Your task to perform on an android device: turn off sleep mode Image 0: 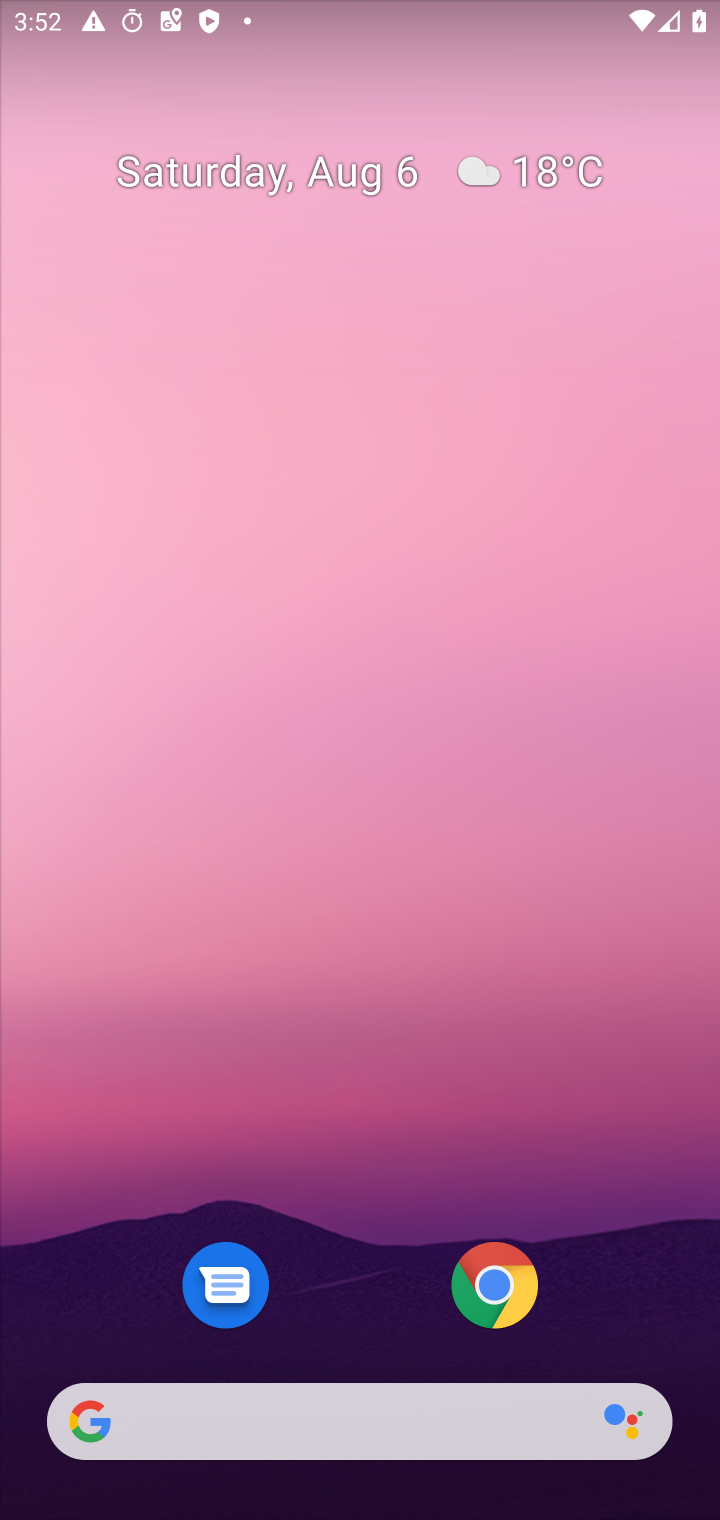
Step 0: drag from (382, 1241) to (404, 208)
Your task to perform on an android device: turn off sleep mode Image 1: 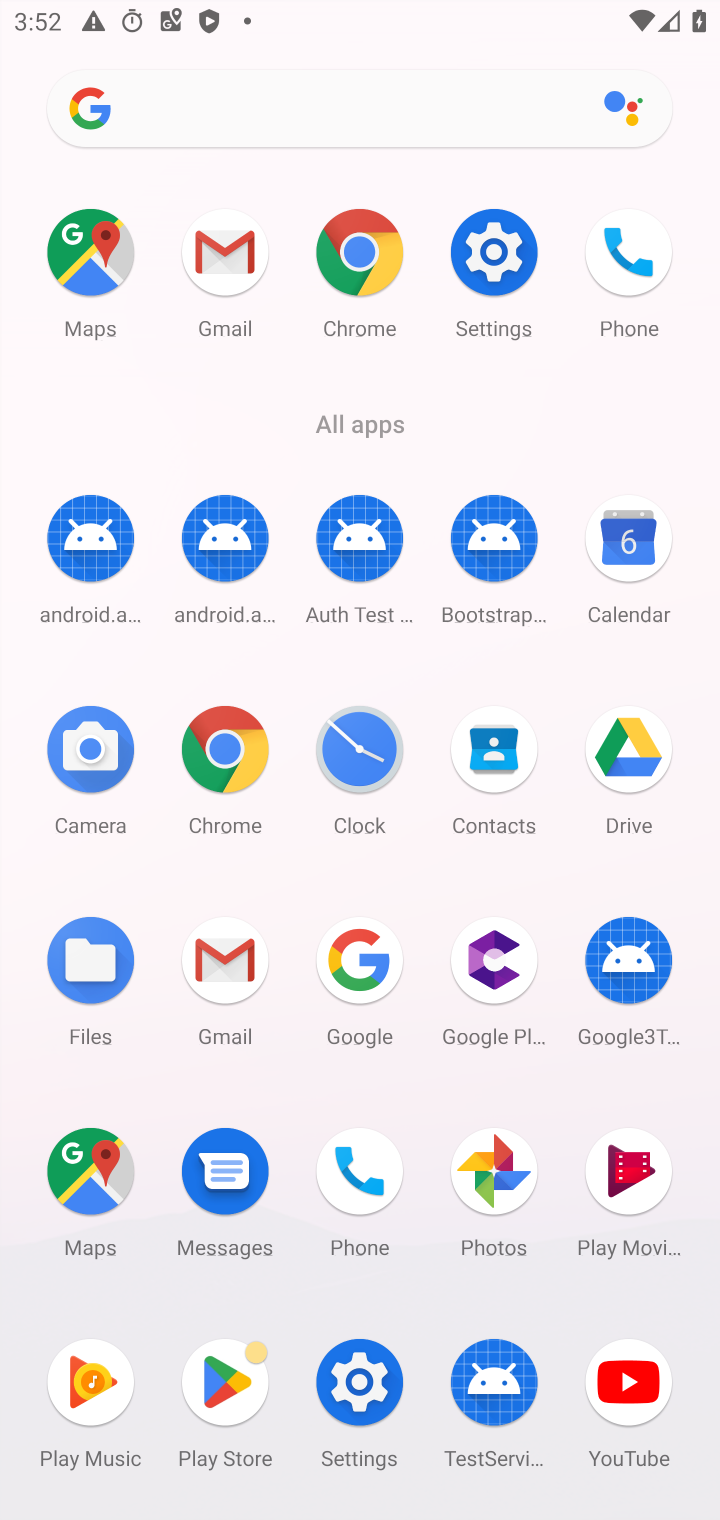
Step 1: click (491, 246)
Your task to perform on an android device: turn off sleep mode Image 2: 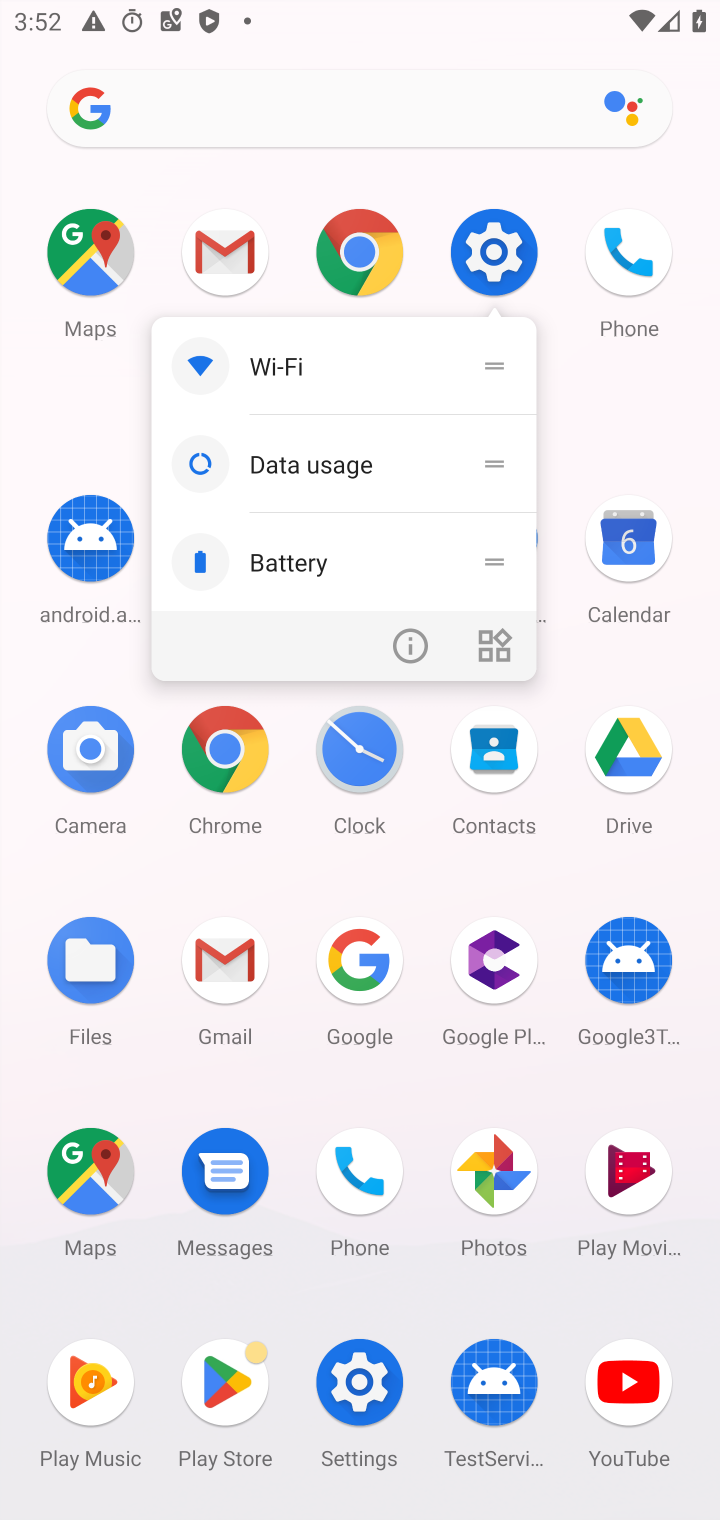
Step 2: click (490, 244)
Your task to perform on an android device: turn off sleep mode Image 3: 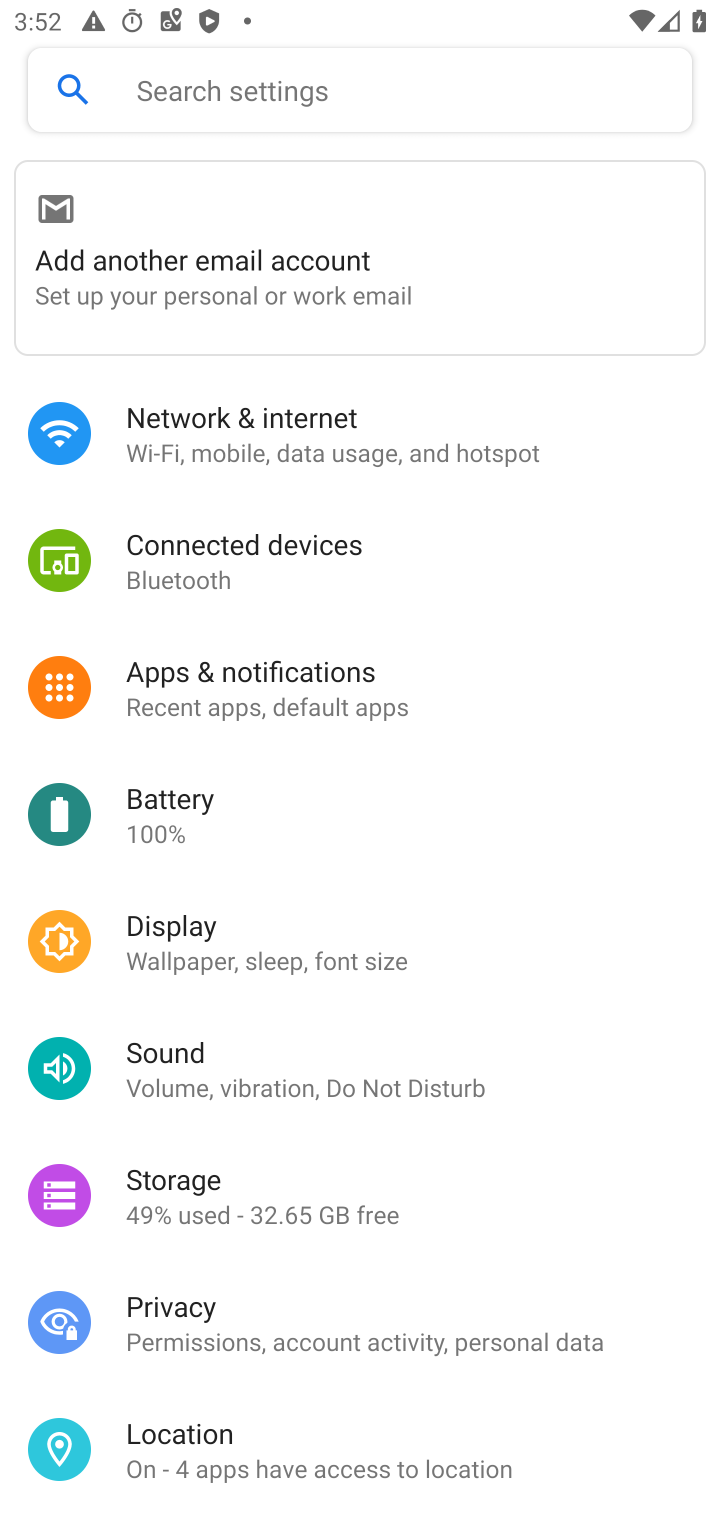
Step 3: click (245, 931)
Your task to perform on an android device: turn off sleep mode Image 4: 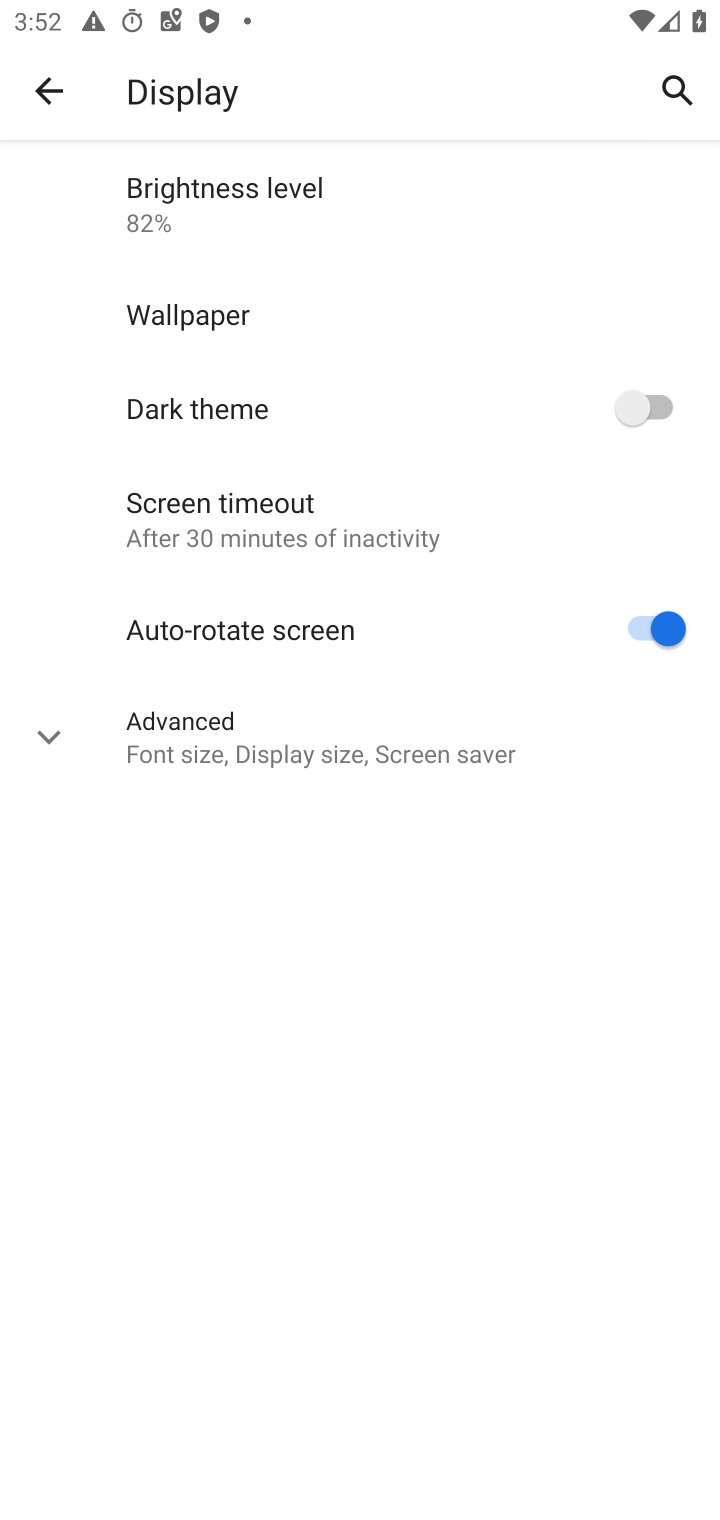
Step 4: click (94, 735)
Your task to perform on an android device: turn off sleep mode Image 5: 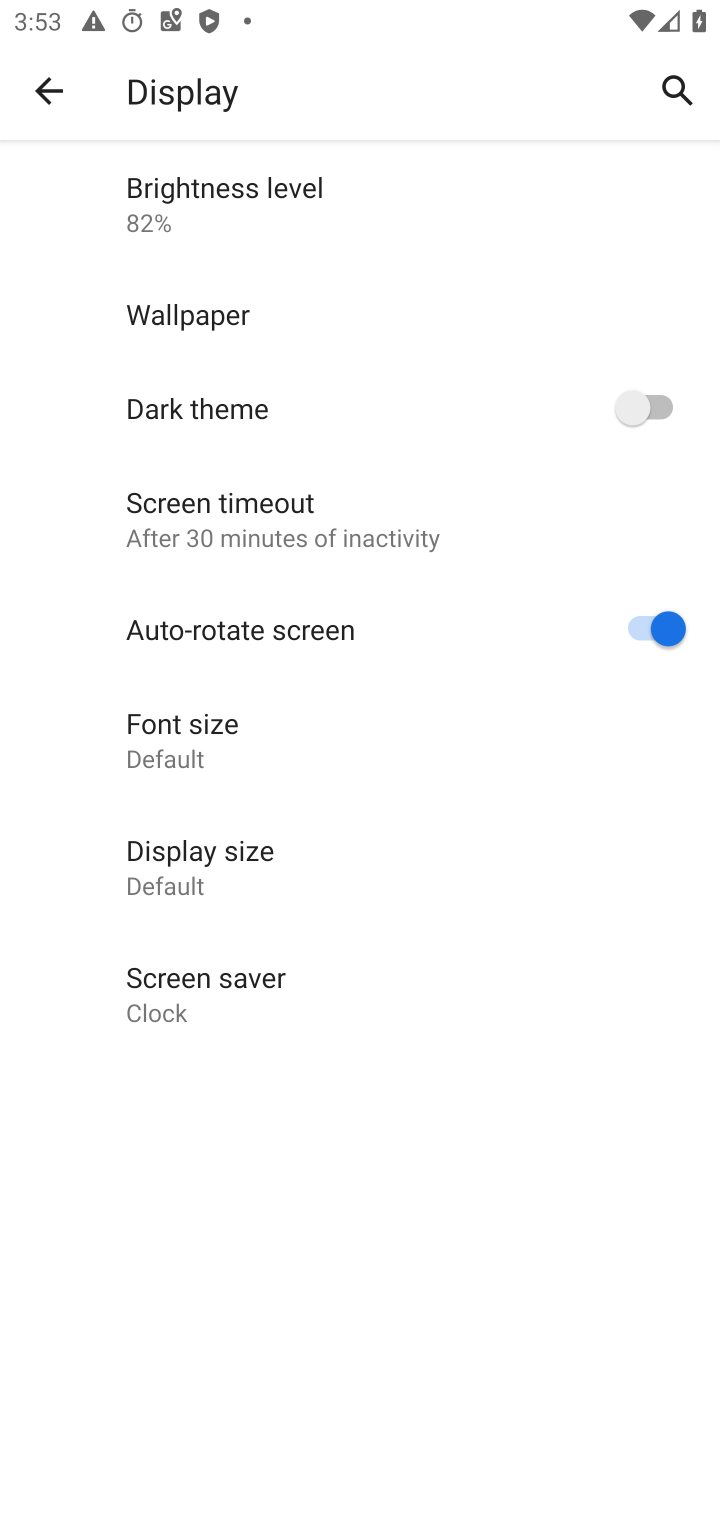
Step 5: task complete